Your task to perform on an android device: Open network settings Image 0: 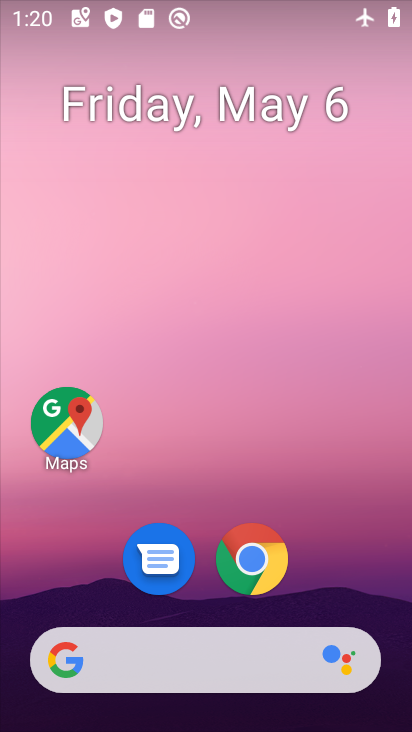
Step 0: drag from (177, 649) to (304, 33)
Your task to perform on an android device: Open network settings Image 1: 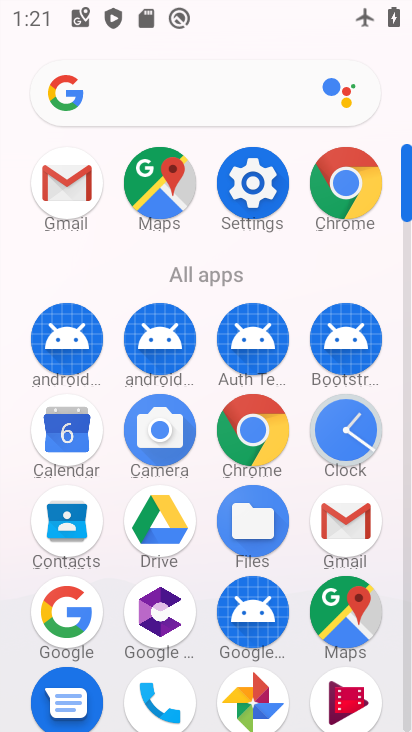
Step 1: click (263, 189)
Your task to perform on an android device: Open network settings Image 2: 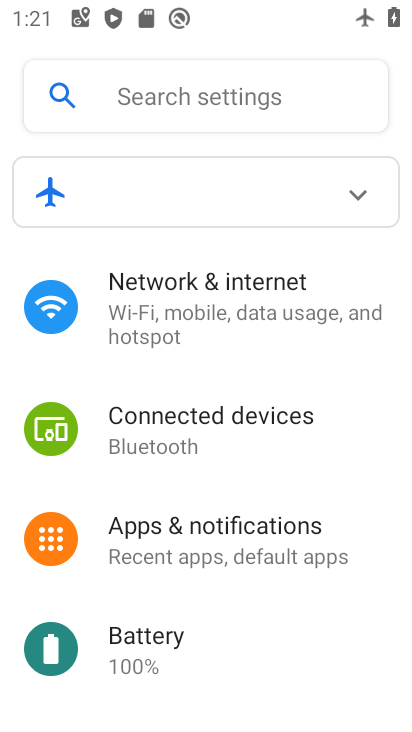
Step 2: click (229, 306)
Your task to perform on an android device: Open network settings Image 3: 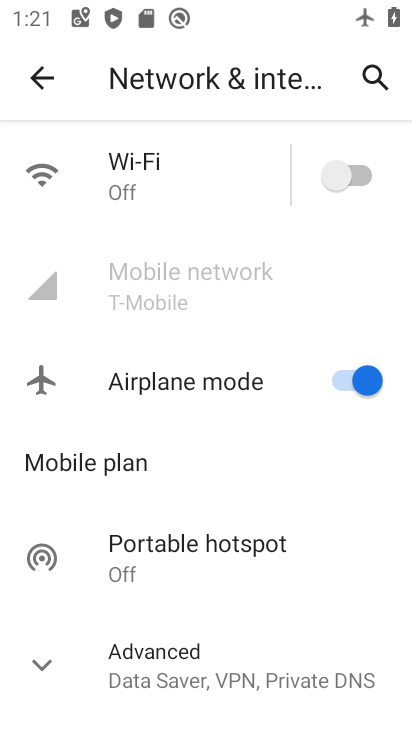
Step 3: task complete